Your task to perform on an android device: Open ESPN.com Image 0: 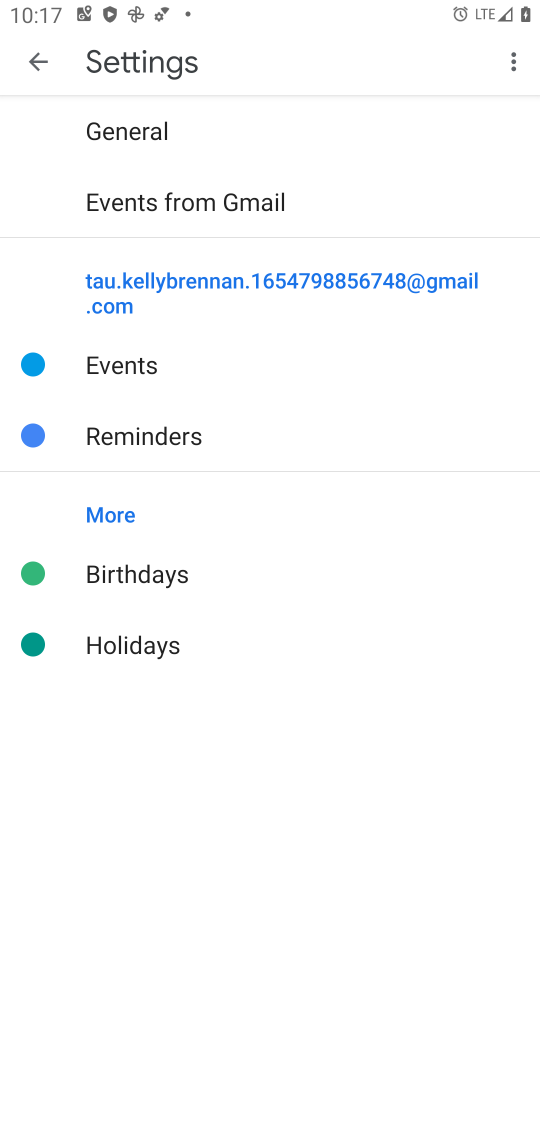
Step 0: press home button
Your task to perform on an android device: Open ESPN.com Image 1: 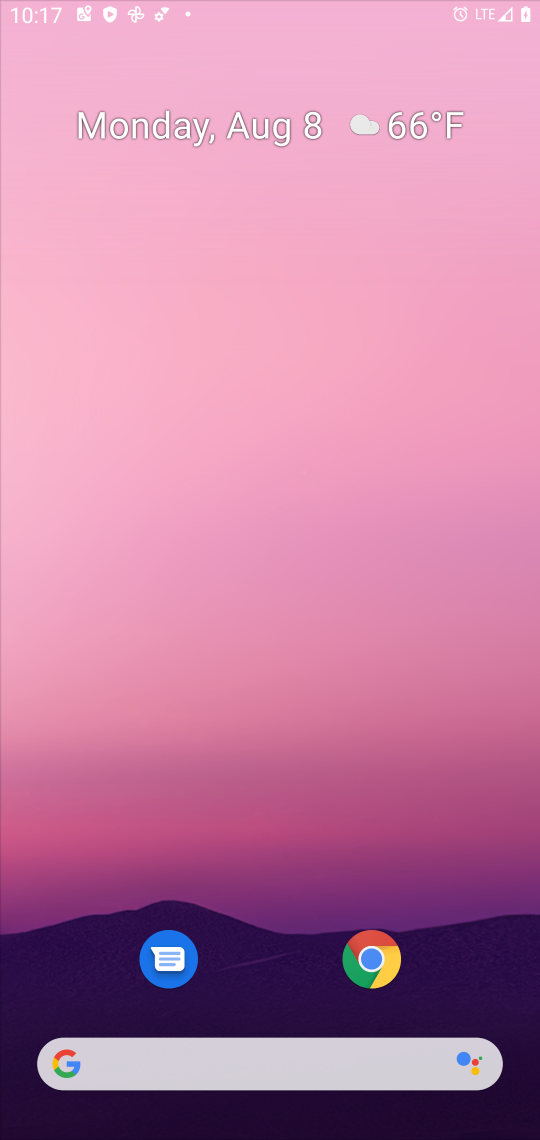
Step 1: drag from (497, 1056) to (264, 65)
Your task to perform on an android device: Open ESPN.com Image 2: 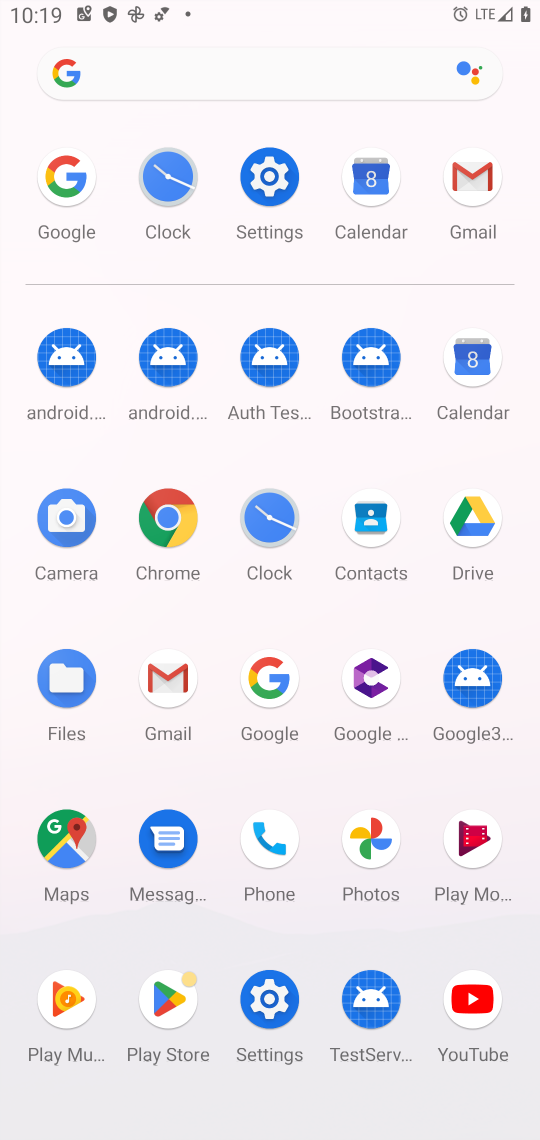
Step 2: click (278, 664)
Your task to perform on an android device: Open ESPN.com Image 3: 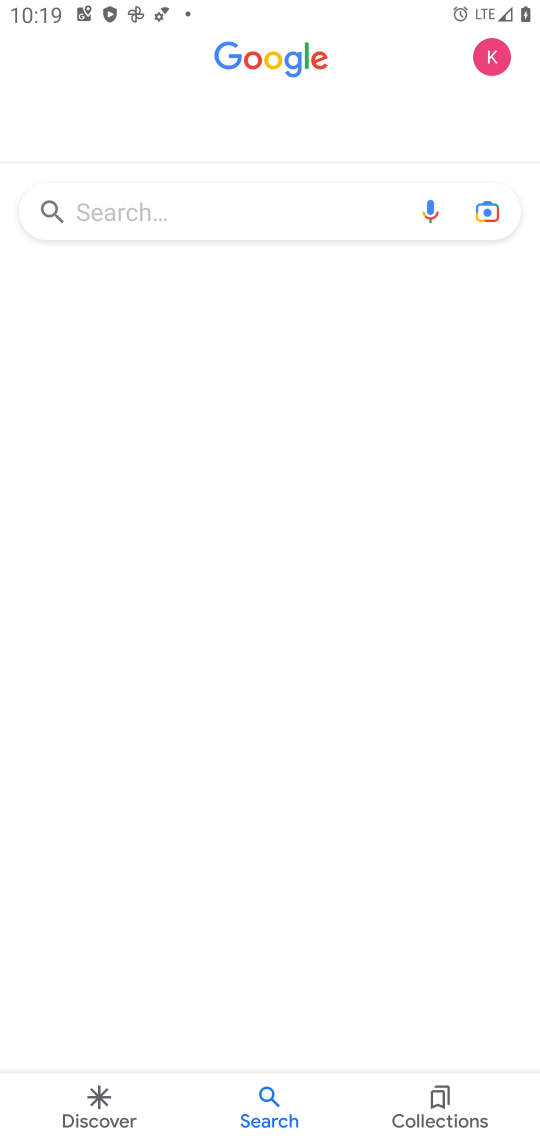
Step 3: click (181, 211)
Your task to perform on an android device: Open ESPN.com Image 4: 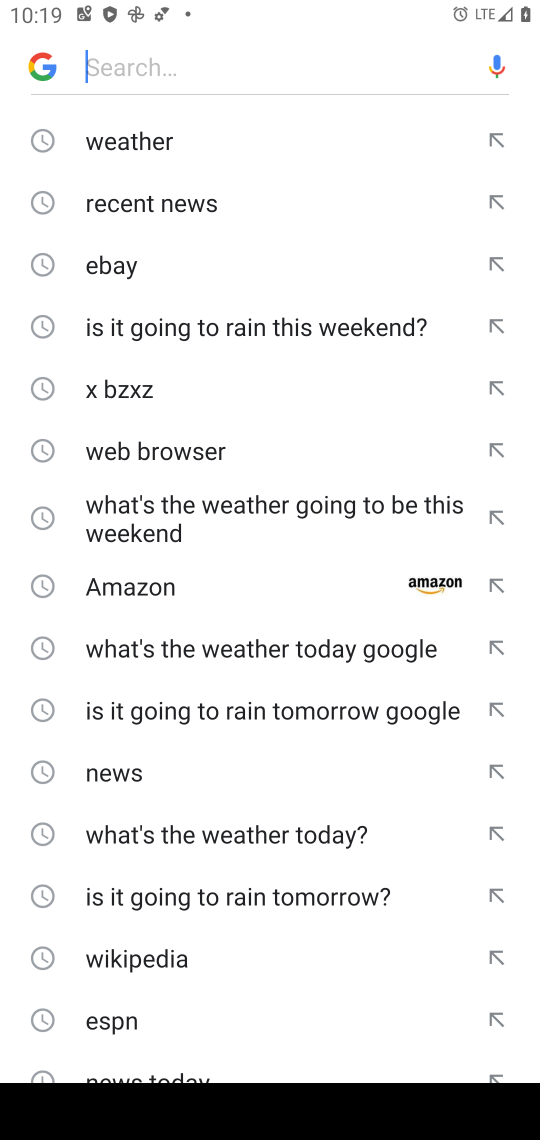
Step 4: type "ESPN.com"
Your task to perform on an android device: Open ESPN.com Image 5: 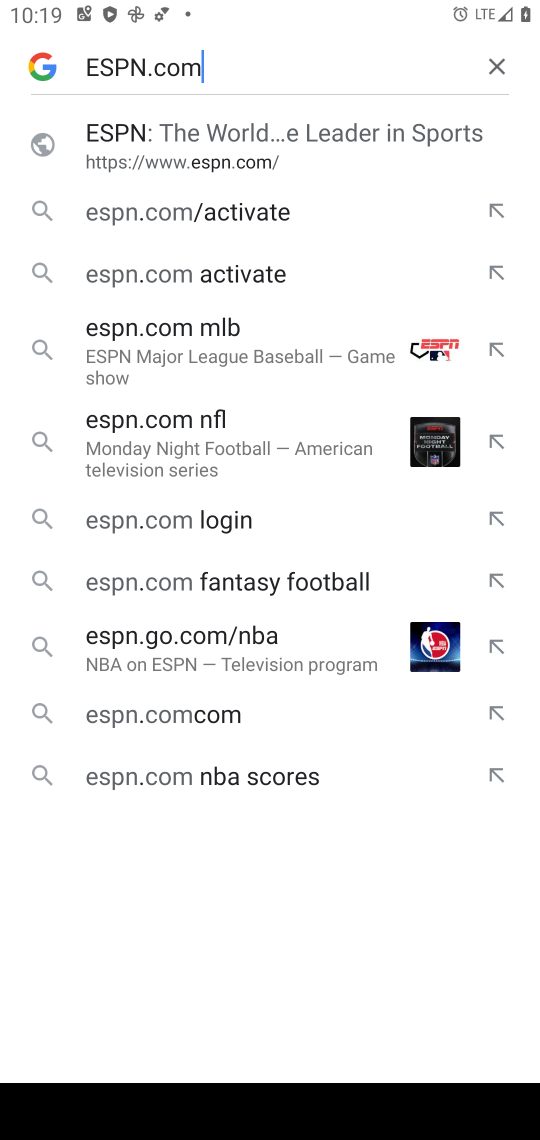
Step 5: click (165, 150)
Your task to perform on an android device: Open ESPN.com Image 6: 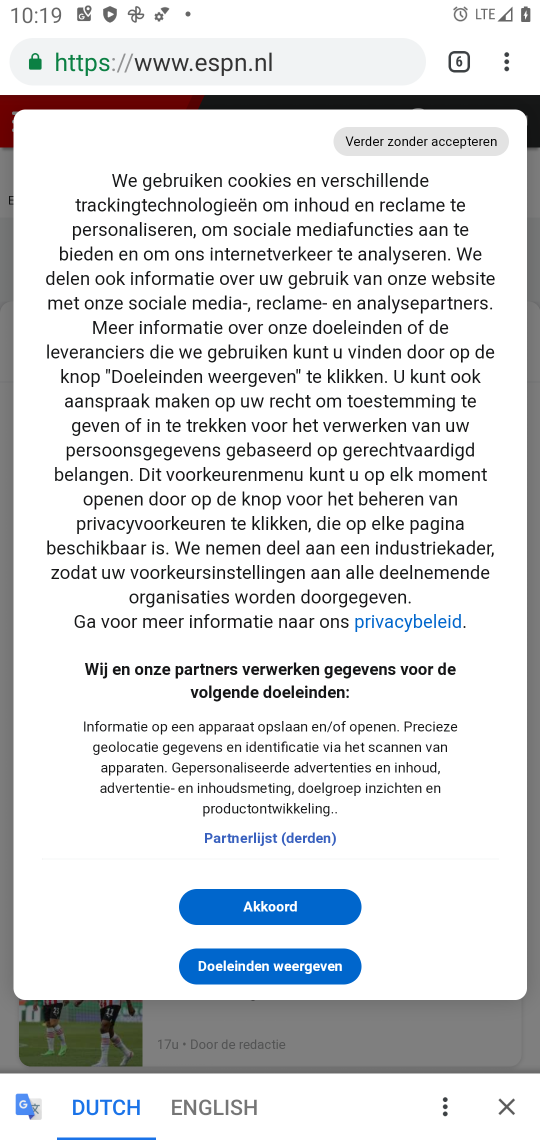
Step 6: task complete